Your task to perform on an android device: check google app version Image 0: 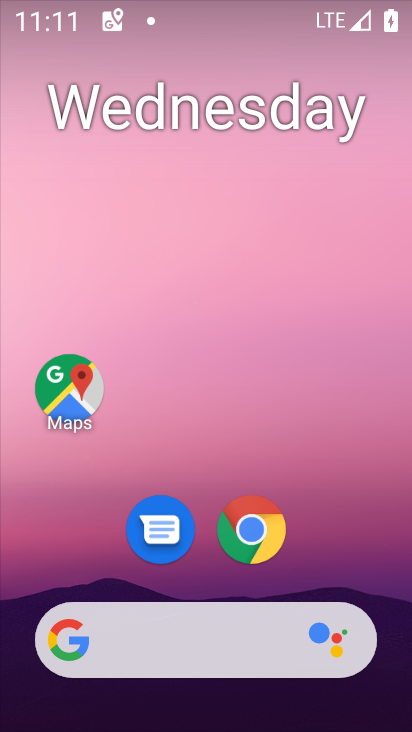
Step 0: click (250, 527)
Your task to perform on an android device: check google app version Image 1: 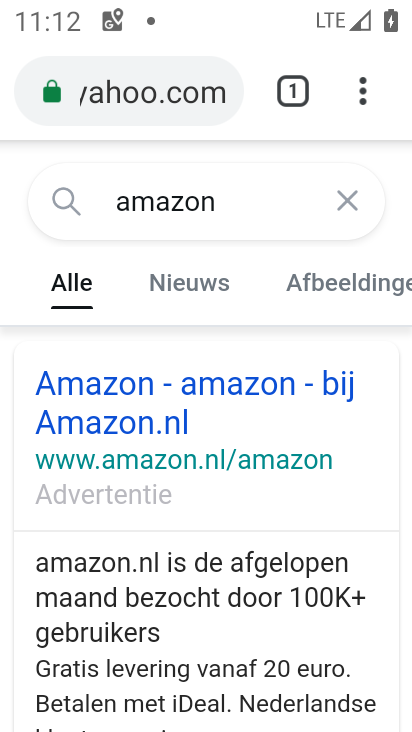
Step 1: click (358, 97)
Your task to perform on an android device: check google app version Image 2: 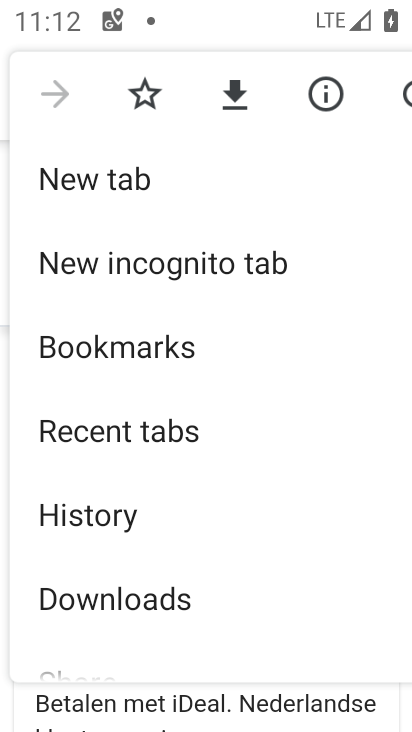
Step 2: drag from (236, 632) to (306, 178)
Your task to perform on an android device: check google app version Image 3: 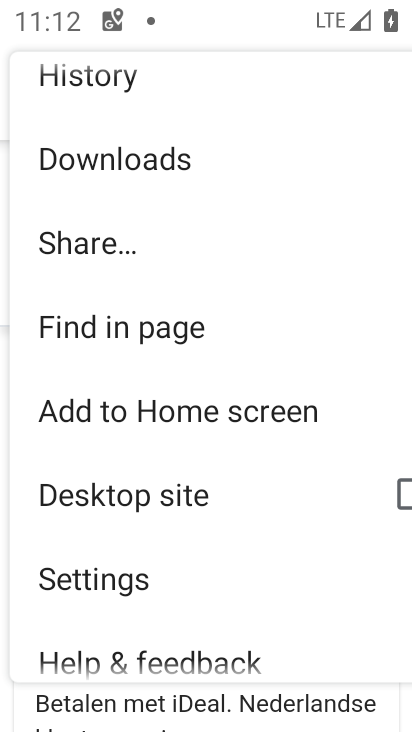
Step 3: click (111, 577)
Your task to perform on an android device: check google app version Image 4: 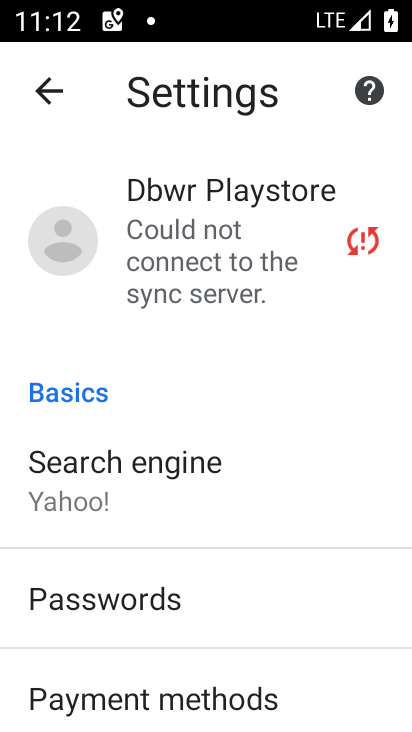
Step 4: drag from (311, 675) to (271, 203)
Your task to perform on an android device: check google app version Image 5: 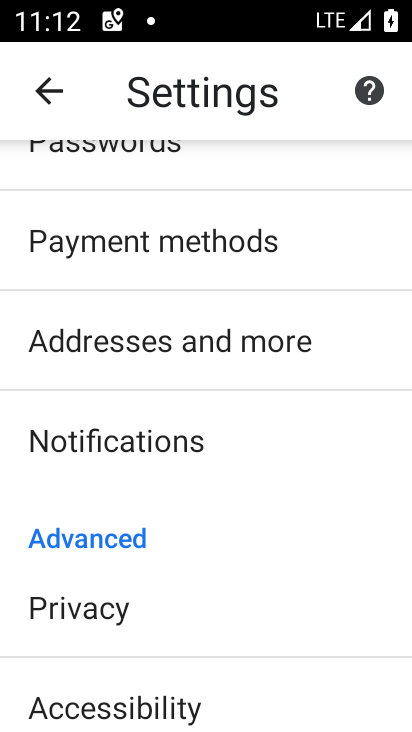
Step 5: drag from (248, 641) to (324, 199)
Your task to perform on an android device: check google app version Image 6: 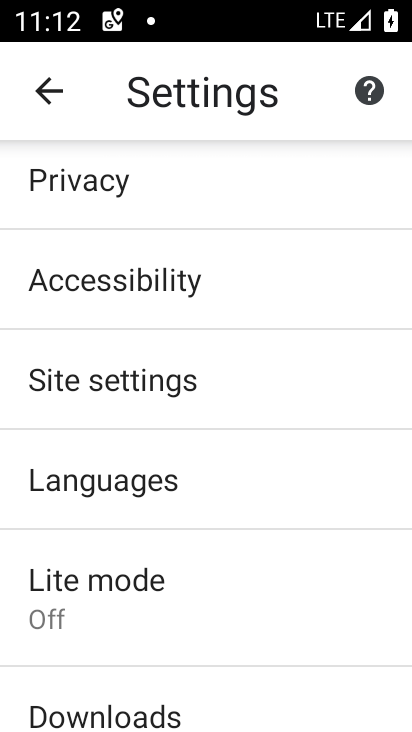
Step 6: drag from (289, 645) to (264, 220)
Your task to perform on an android device: check google app version Image 7: 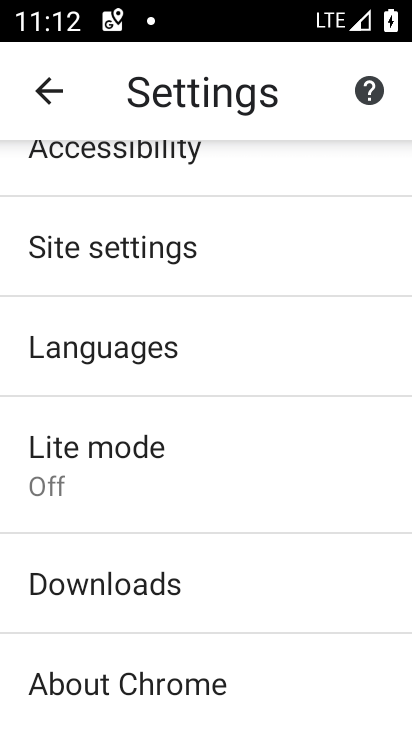
Step 7: click (123, 687)
Your task to perform on an android device: check google app version Image 8: 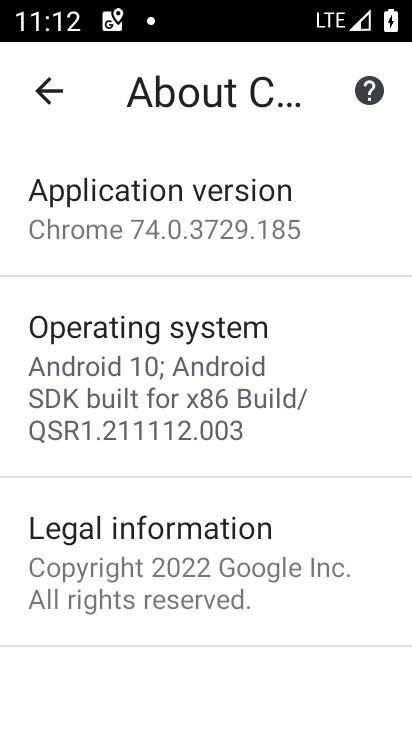
Step 8: click (103, 205)
Your task to perform on an android device: check google app version Image 9: 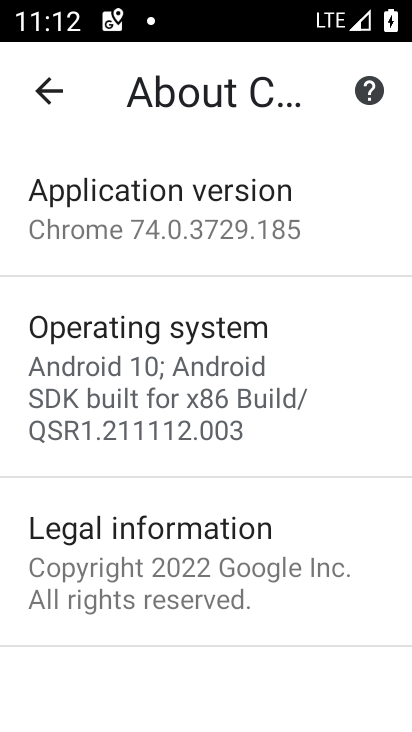
Step 9: task complete